Your task to perform on an android device: What's on my calendar today? Image 0: 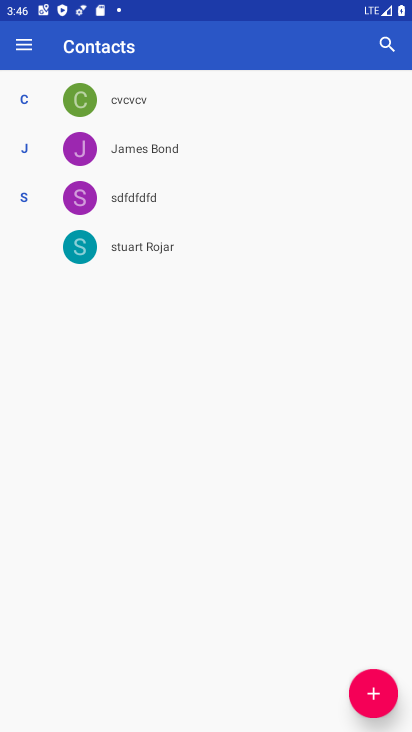
Step 0: press home button
Your task to perform on an android device: What's on my calendar today? Image 1: 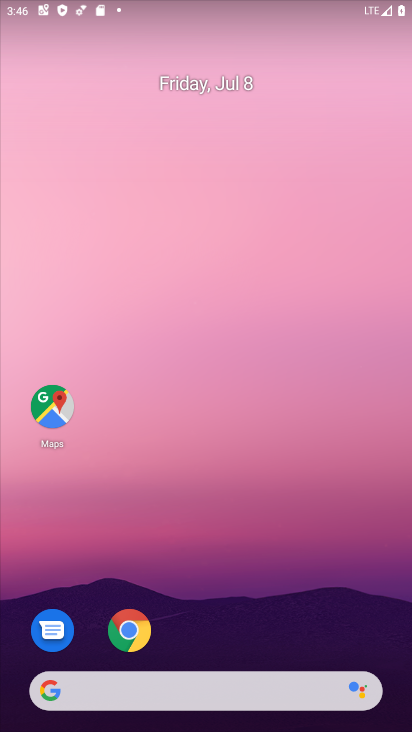
Step 1: drag from (251, 651) to (296, 261)
Your task to perform on an android device: What's on my calendar today? Image 2: 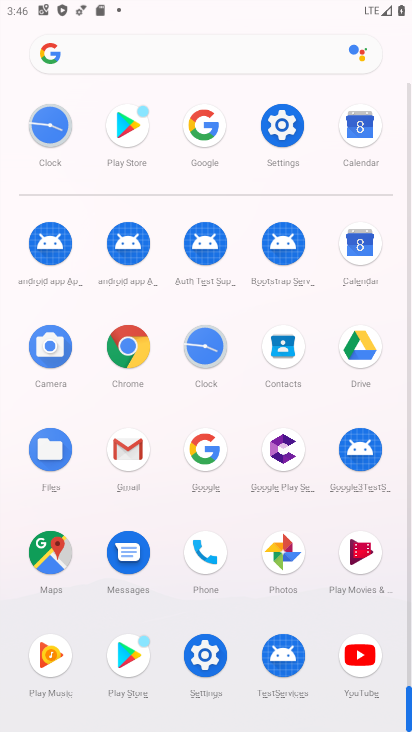
Step 2: click (362, 244)
Your task to perform on an android device: What's on my calendar today? Image 3: 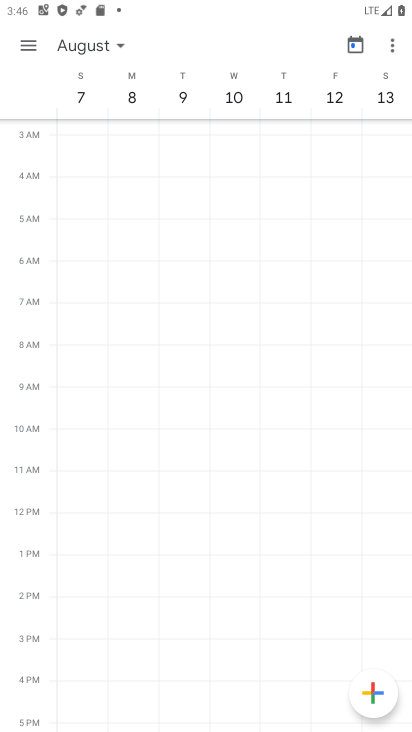
Step 3: click (356, 44)
Your task to perform on an android device: What's on my calendar today? Image 4: 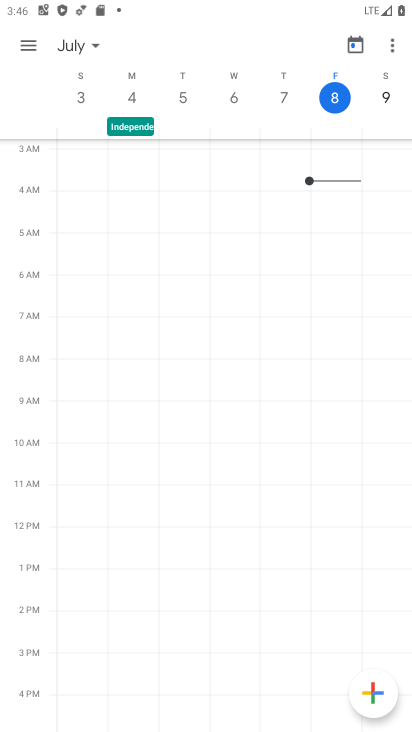
Step 4: click (89, 47)
Your task to perform on an android device: What's on my calendar today? Image 5: 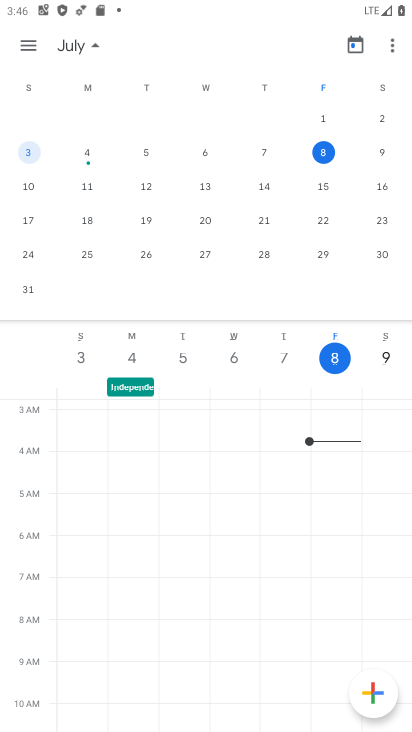
Step 5: click (331, 149)
Your task to perform on an android device: What's on my calendar today? Image 6: 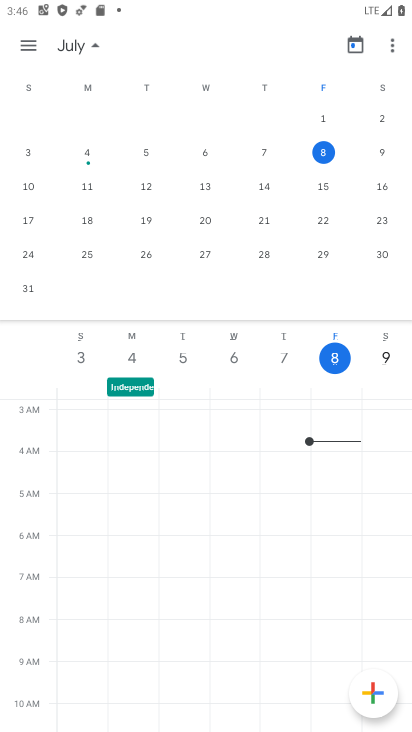
Step 6: click (31, 45)
Your task to perform on an android device: What's on my calendar today? Image 7: 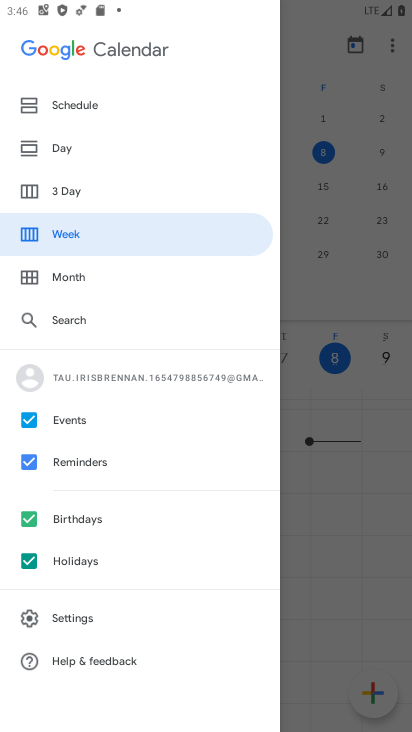
Step 7: click (75, 100)
Your task to perform on an android device: What's on my calendar today? Image 8: 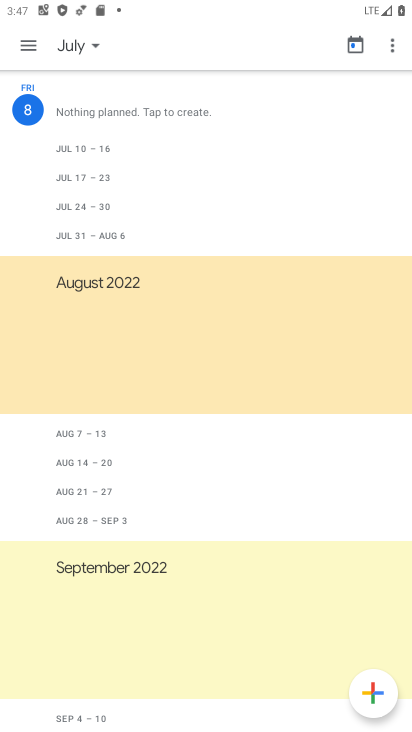
Step 8: task complete